Your task to perform on an android device: Search for "logitech g pro" on ebay, select the first entry, and add it to the cart. Image 0: 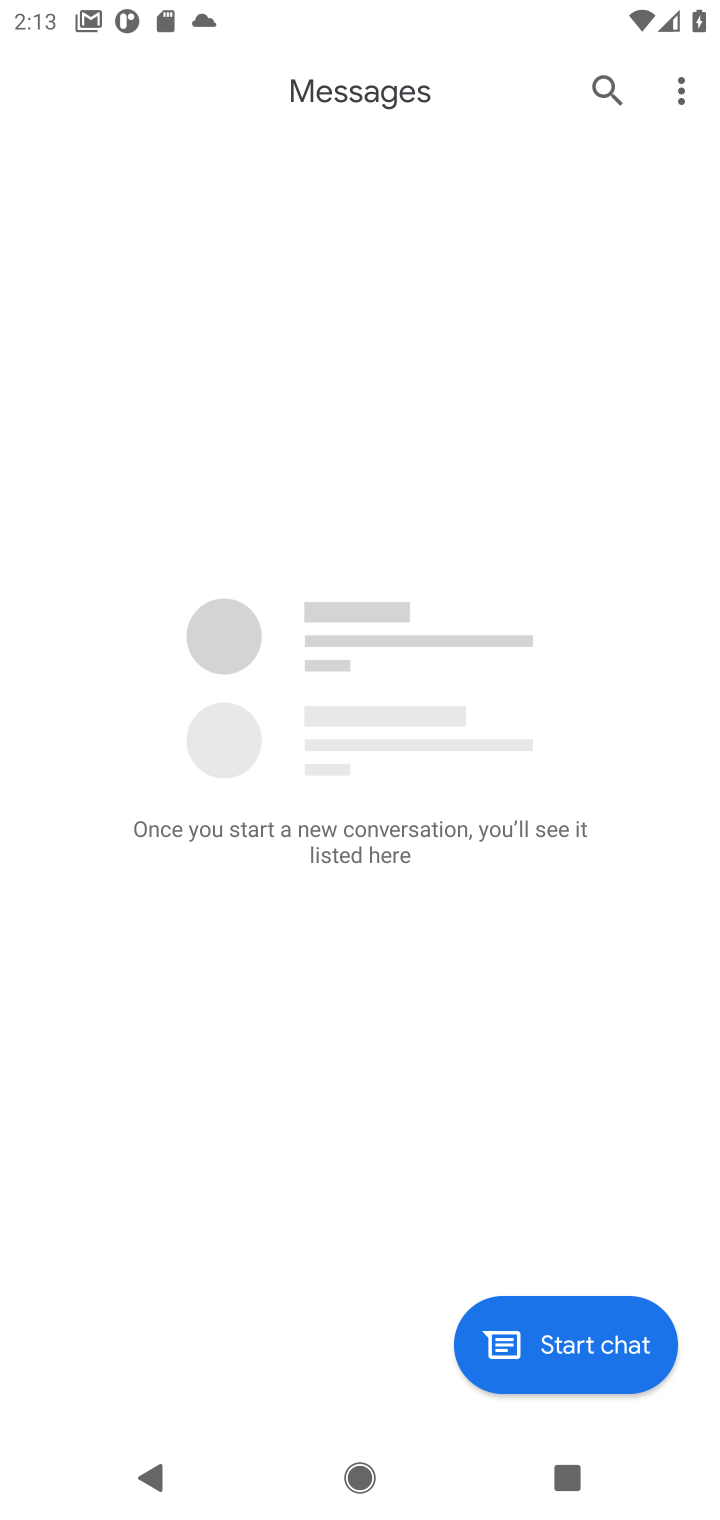
Step 0: press home button
Your task to perform on an android device: Search for "logitech g pro" on ebay, select the first entry, and add it to the cart. Image 1: 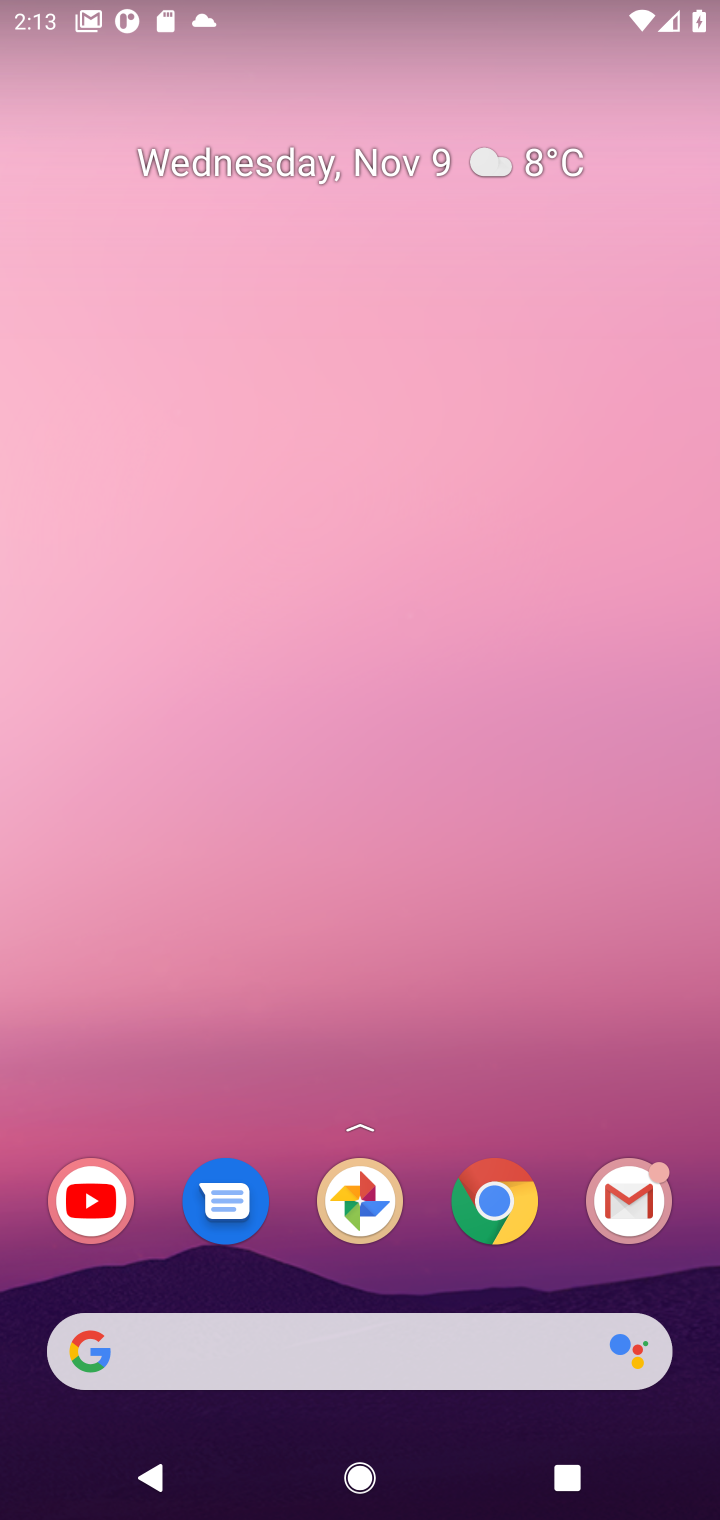
Step 1: click (316, 1383)
Your task to perform on an android device: Search for "logitech g pro" on ebay, select the first entry, and add it to the cart. Image 2: 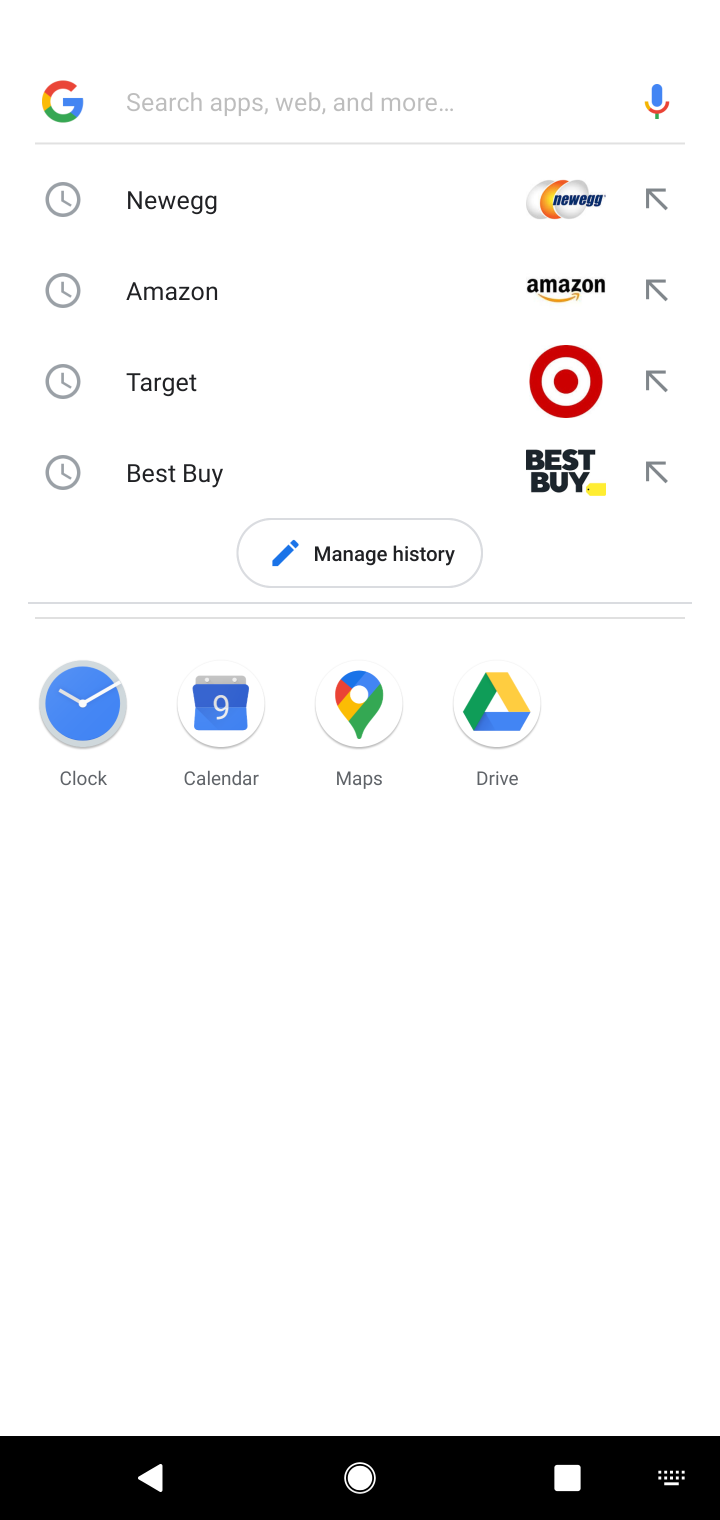
Step 2: type "ebay"
Your task to perform on an android device: Search for "logitech g pro" on ebay, select the first entry, and add it to the cart. Image 3: 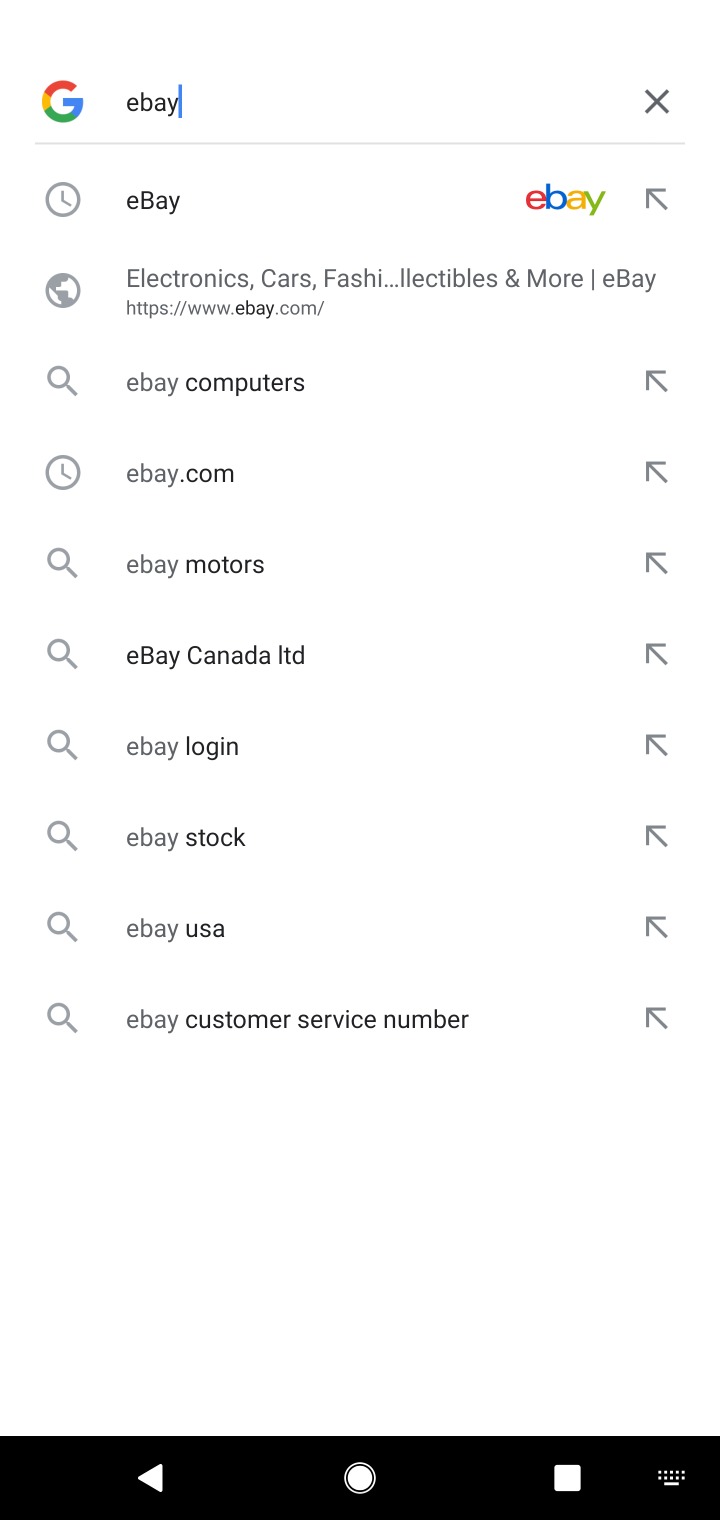
Step 3: click (540, 202)
Your task to perform on an android device: Search for "logitech g pro" on ebay, select the first entry, and add it to the cart. Image 4: 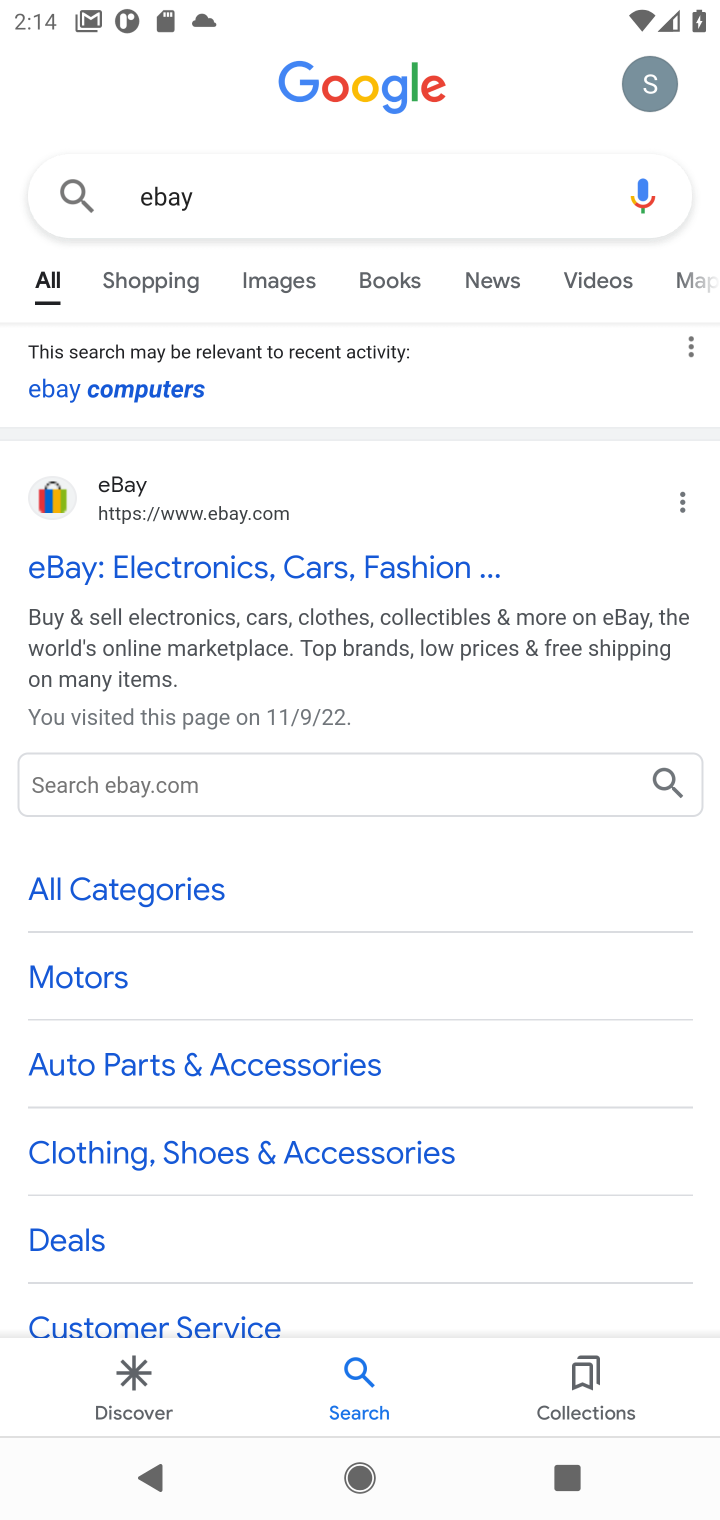
Step 4: click (169, 570)
Your task to perform on an android device: Search for "logitech g pro" on ebay, select the first entry, and add it to the cart. Image 5: 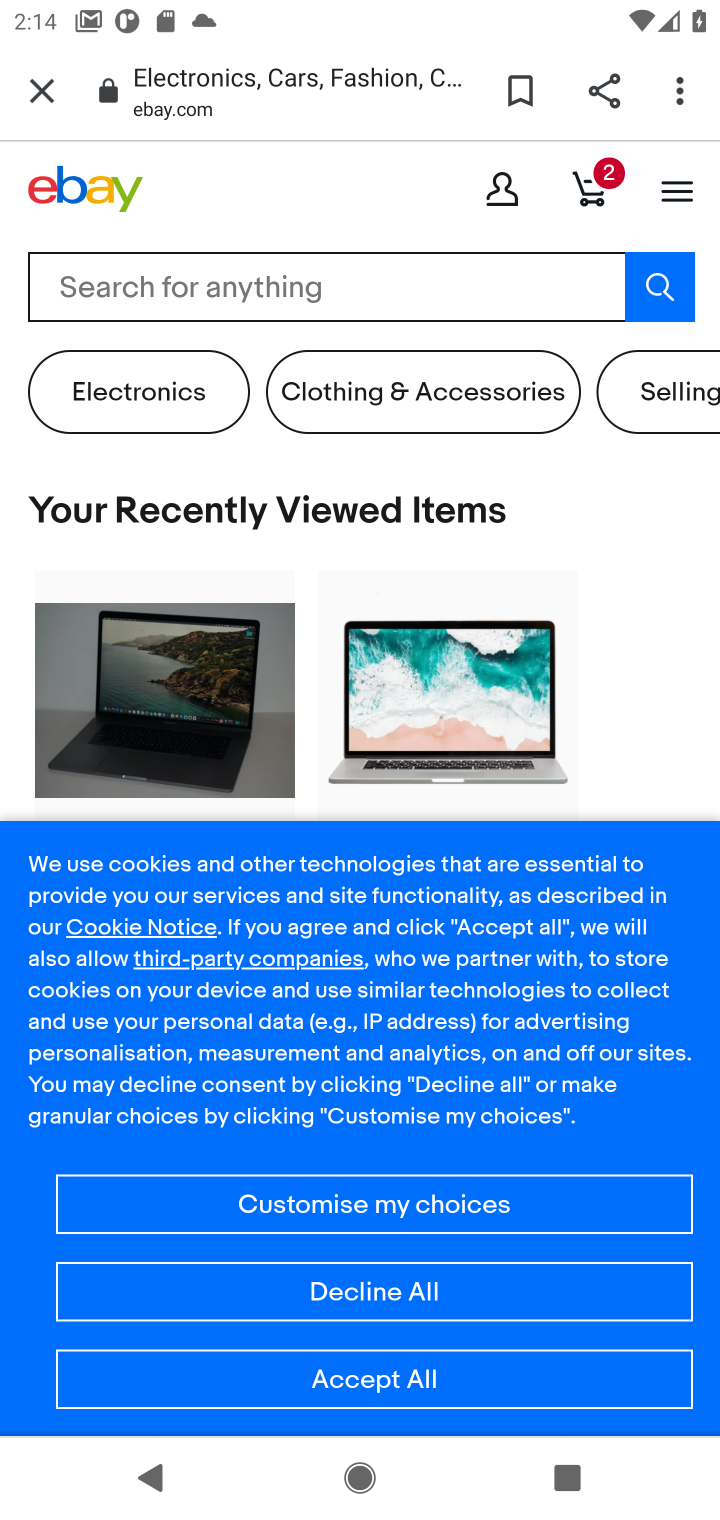
Step 5: drag from (262, 1206) to (262, 832)
Your task to perform on an android device: Search for "logitech g pro" on ebay, select the first entry, and add it to the cart. Image 6: 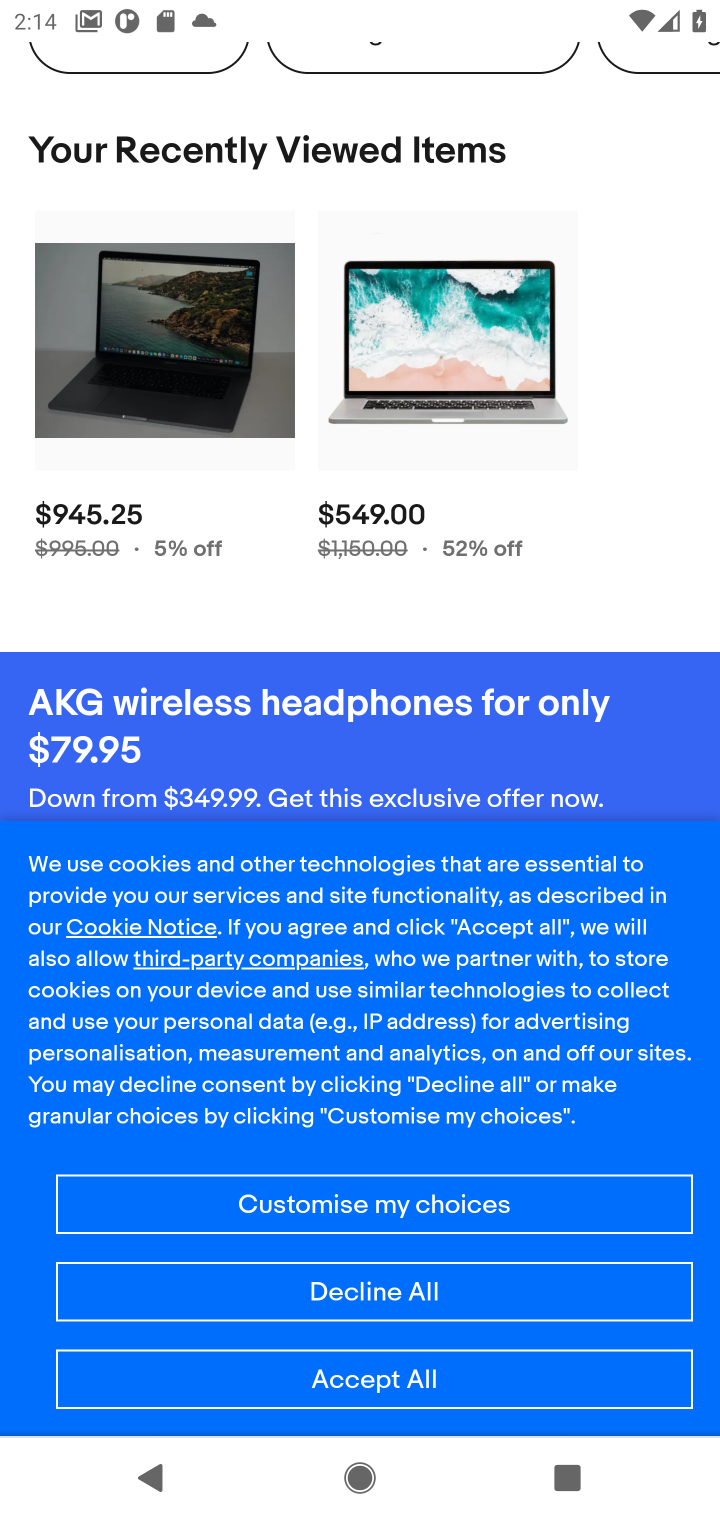
Step 6: click (362, 1286)
Your task to perform on an android device: Search for "logitech g pro" on ebay, select the first entry, and add it to the cart. Image 7: 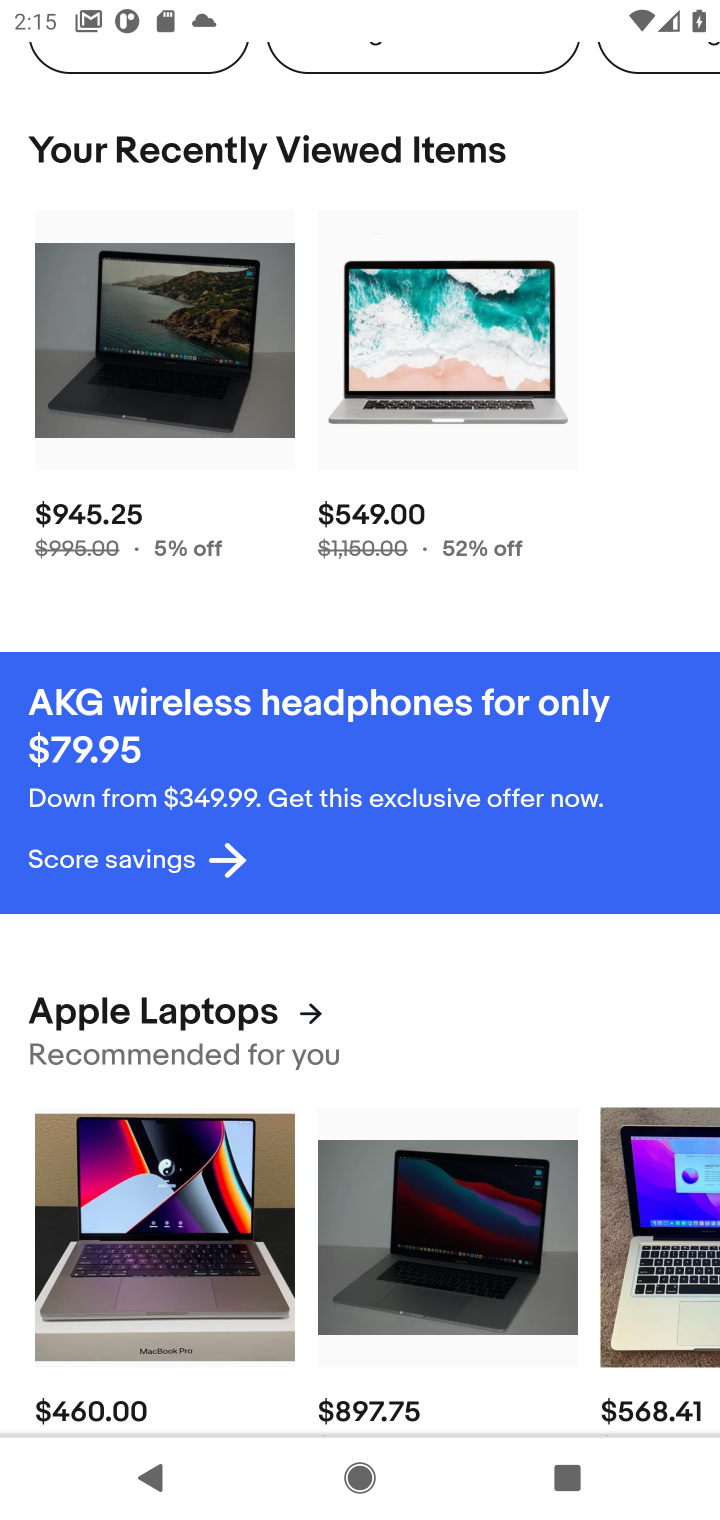
Step 7: click (151, 451)
Your task to perform on an android device: Search for "logitech g pro" on ebay, select the first entry, and add it to the cart. Image 8: 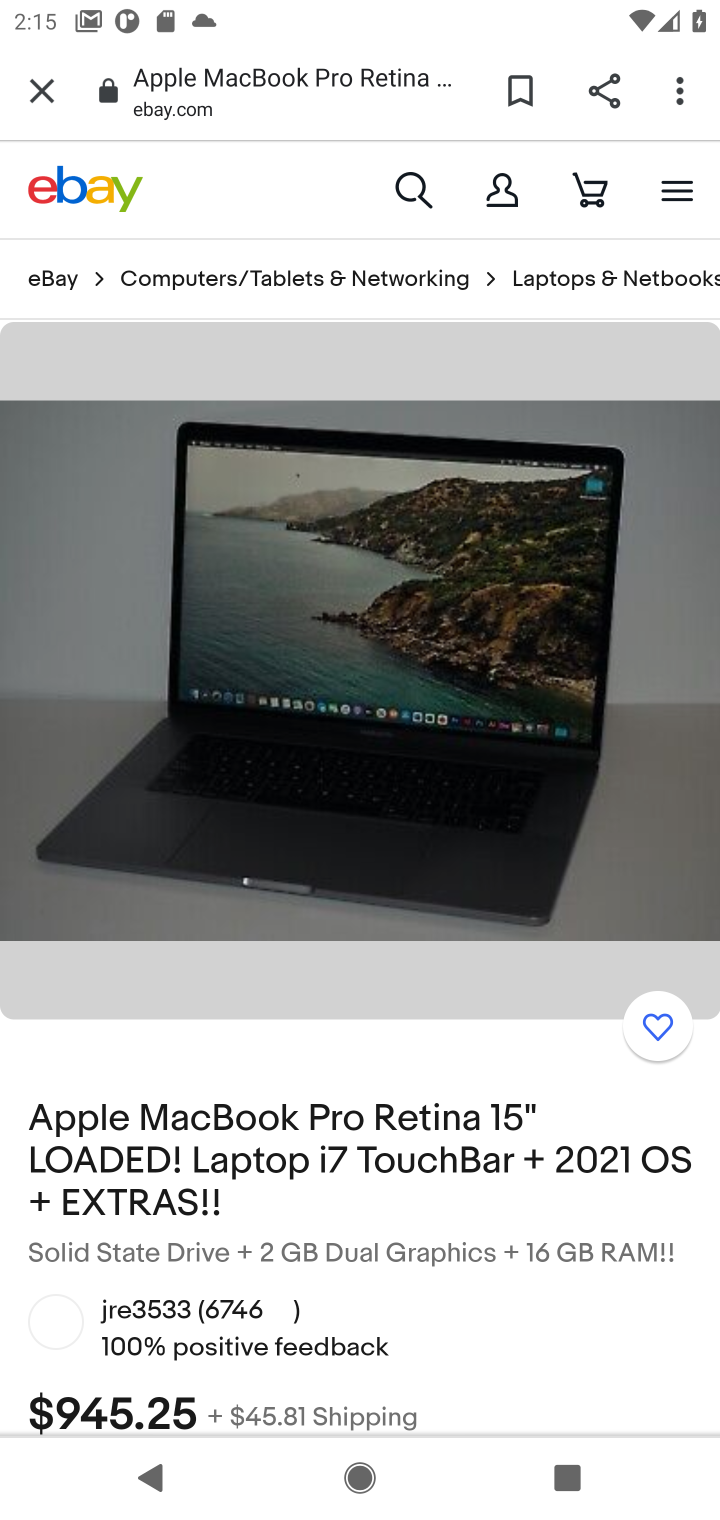
Step 8: press back button
Your task to perform on an android device: Search for "logitech g pro" on ebay, select the first entry, and add it to the cart. Image 9: 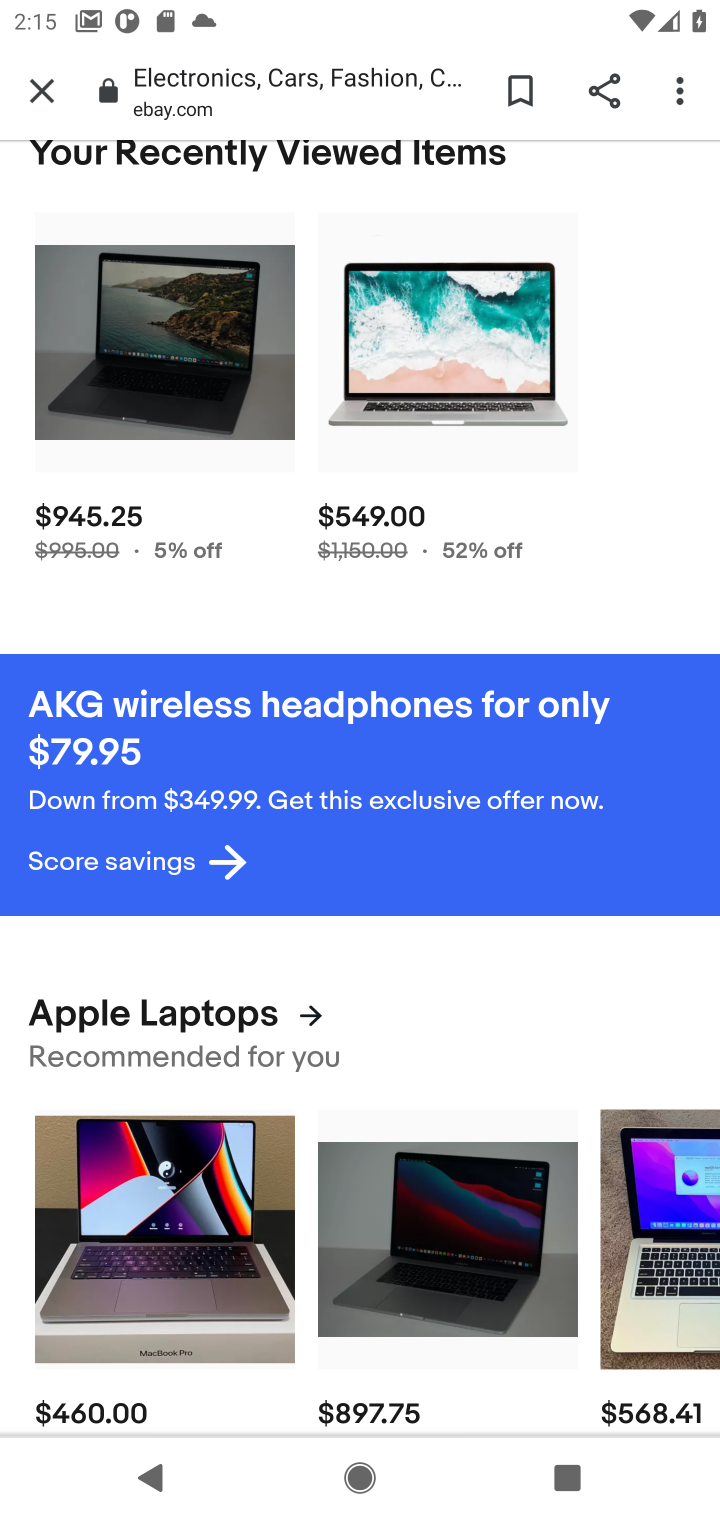
Step 9: press back button
Your task to perform on an android device: Search for "logitech g pro" on ebay, select the first entry, and add it to the cart. Image 10: 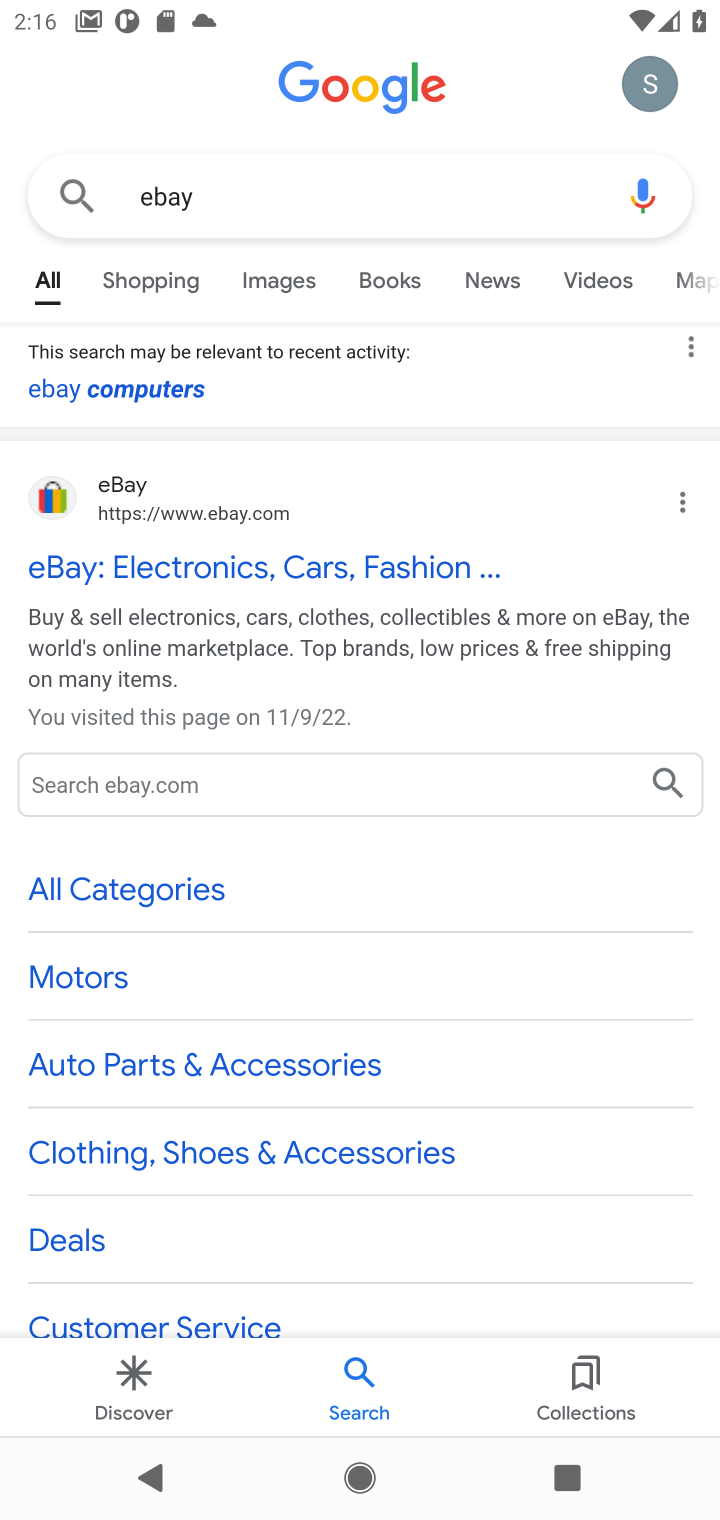
Step 10: click (158, 561)
Your task to perform on an android device: Search for "logitech g pro" on ebay, select the first entry, and add it to the cart. Image 11: 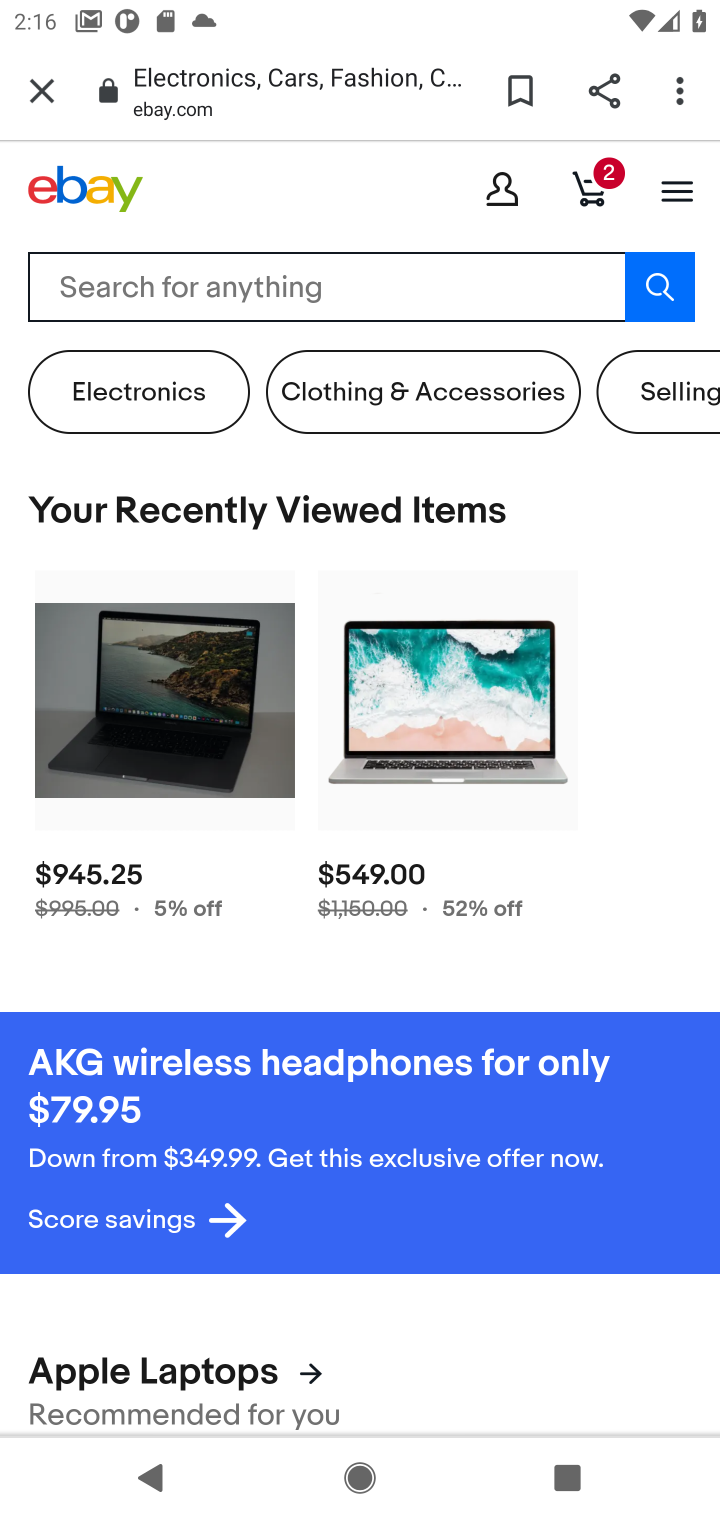
Step 11: drag from (184, 841) to (221, 683)
Your task to perform on an android device: Search for "logitech g pro" on ebay, select the first entry, and add it to the cart. Image 12: 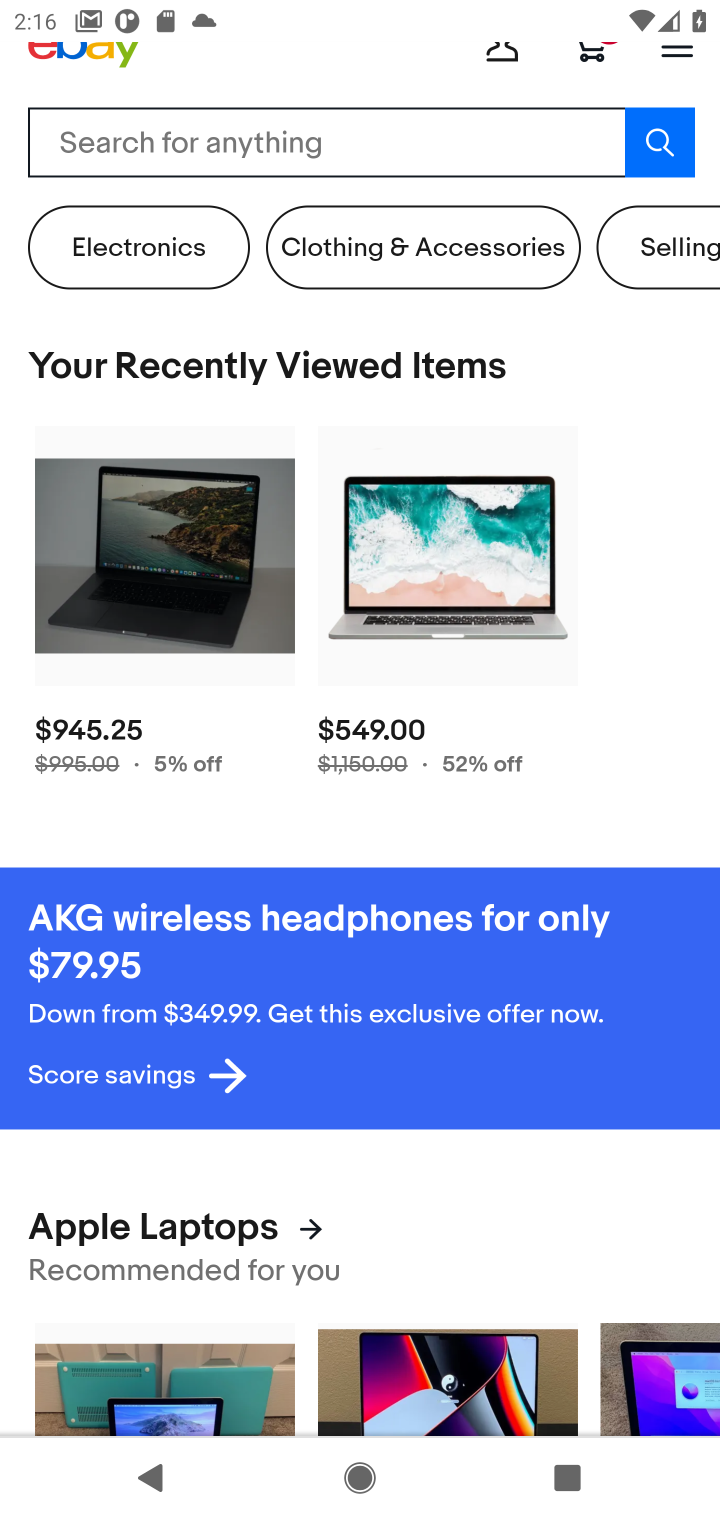
Step 12: click (411, 609)
Your task to perform on an android device: Search for "logitech g pro" on ebay, select the first entry, and add it to the cart. Image 13: 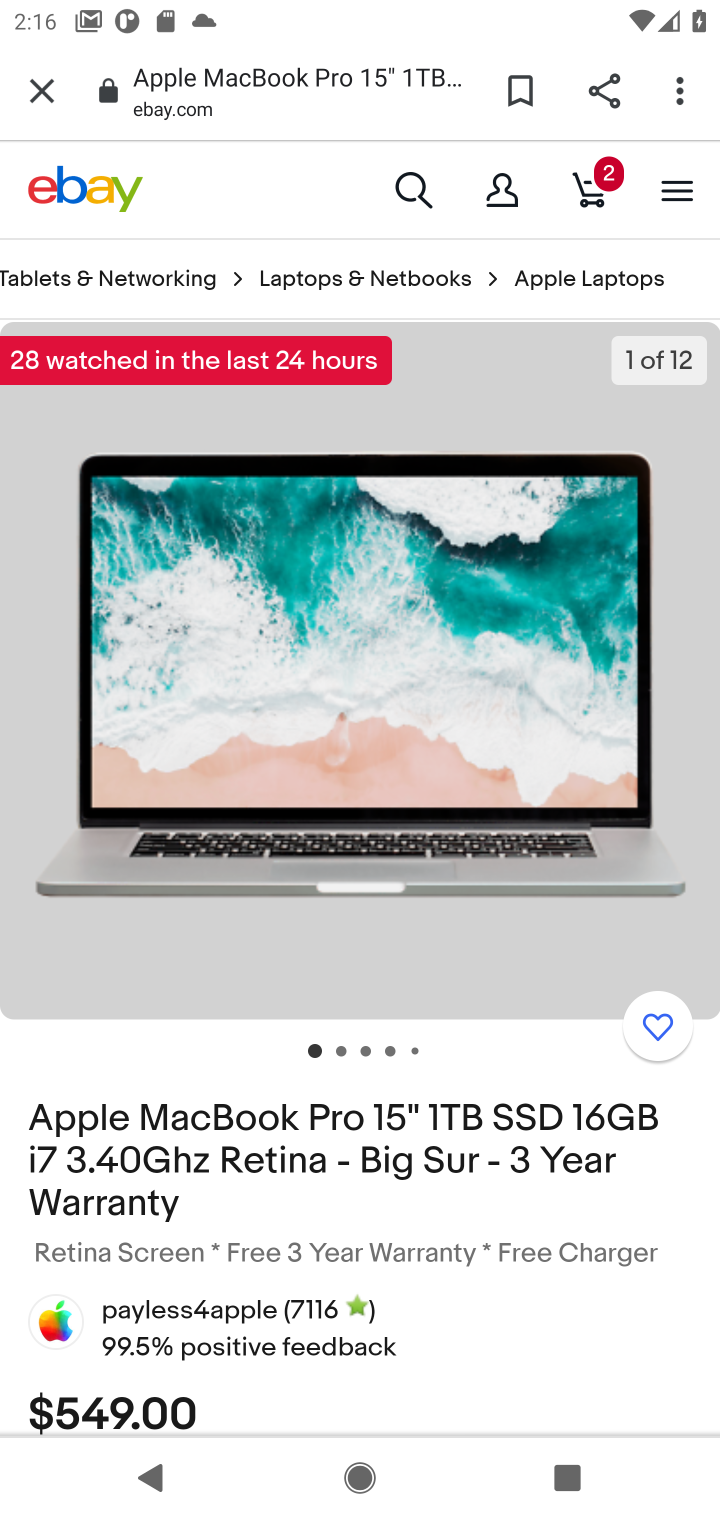
Step 13: click (409, 191)
Your task to perform on an android device: Search for "logitech g pro" on ebay, select the first entry, and add it to the cart. Image 14: 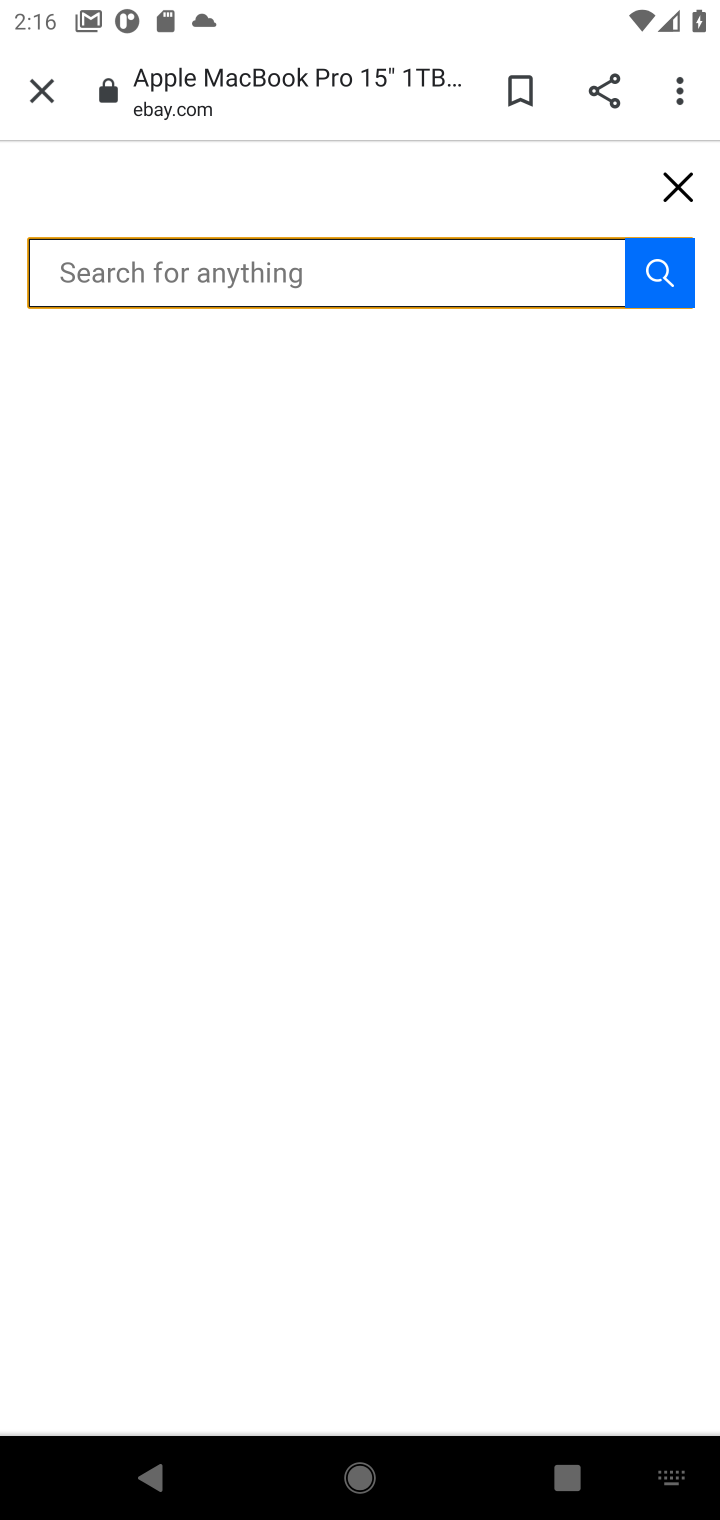
Step 14: click (316, 272)
Your task to perform on an android device: Search for "logitech g pro" on ebay, select the first entry, and add it to the cart. Image 15: 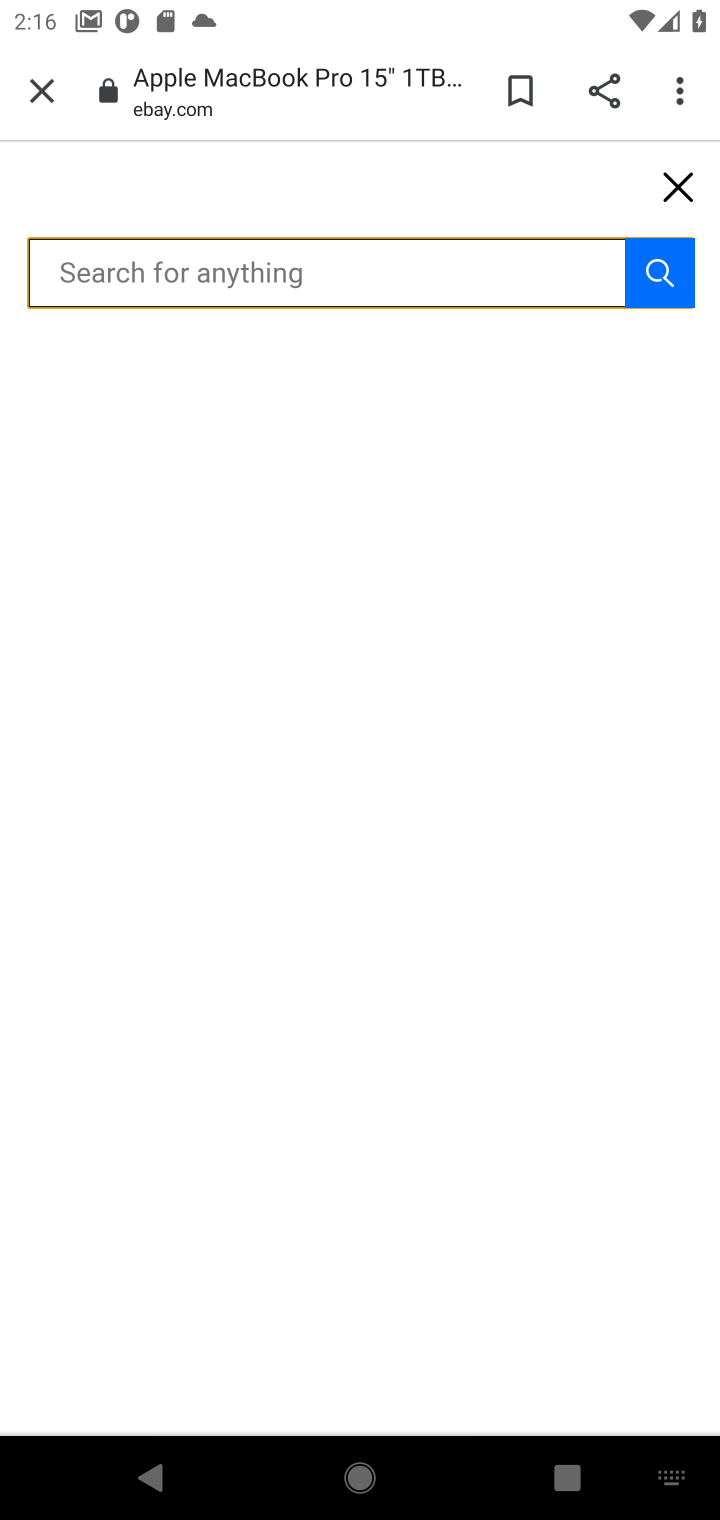
Step 15: type "logitech g pro"
Your task to perform on an android device: Search for "logitech g pro" on ebay, select the first entry, and add it to the cart. Image 16: 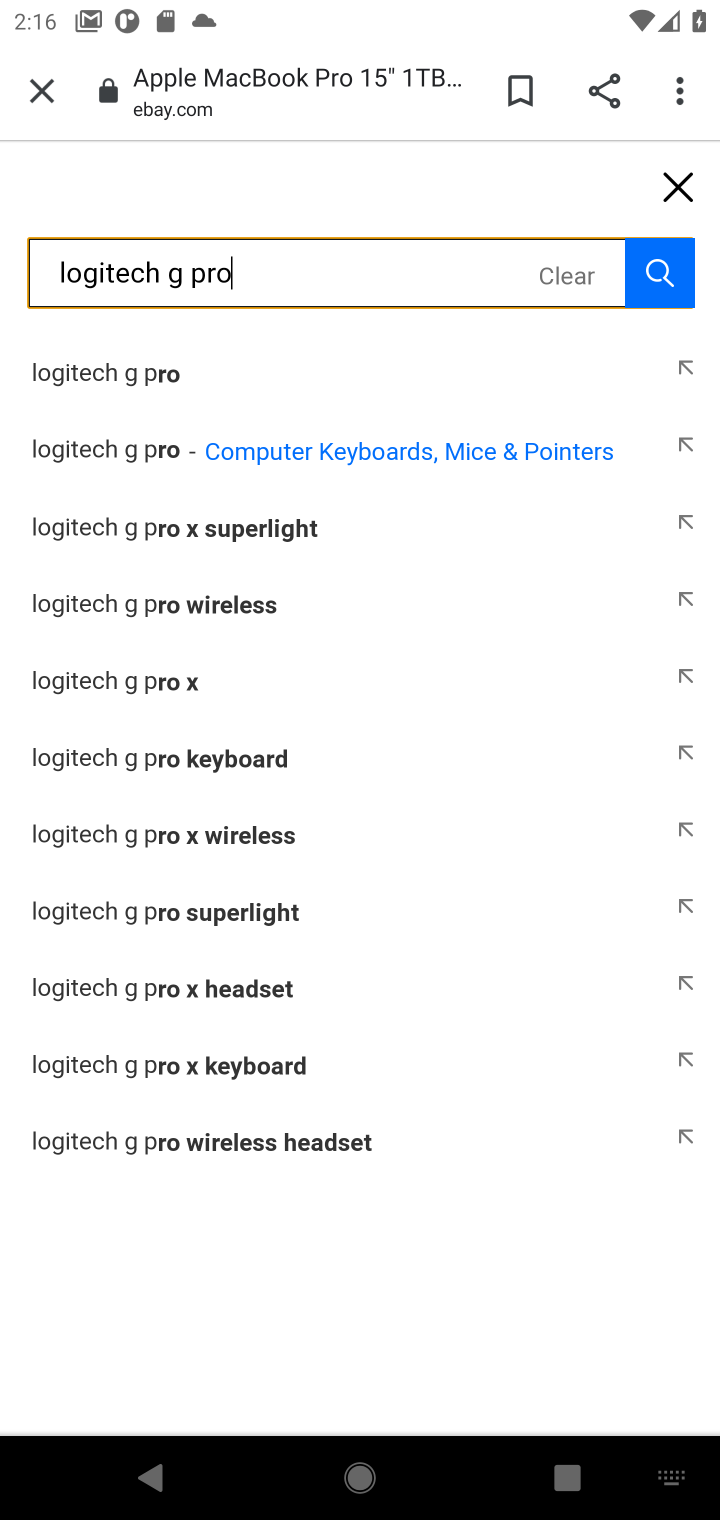
Step 16: click (117, 384)
Your task to perform on an android device: Search for "logitech g pro" on ebay, select the first entry, and add it to the cart. Image 17: 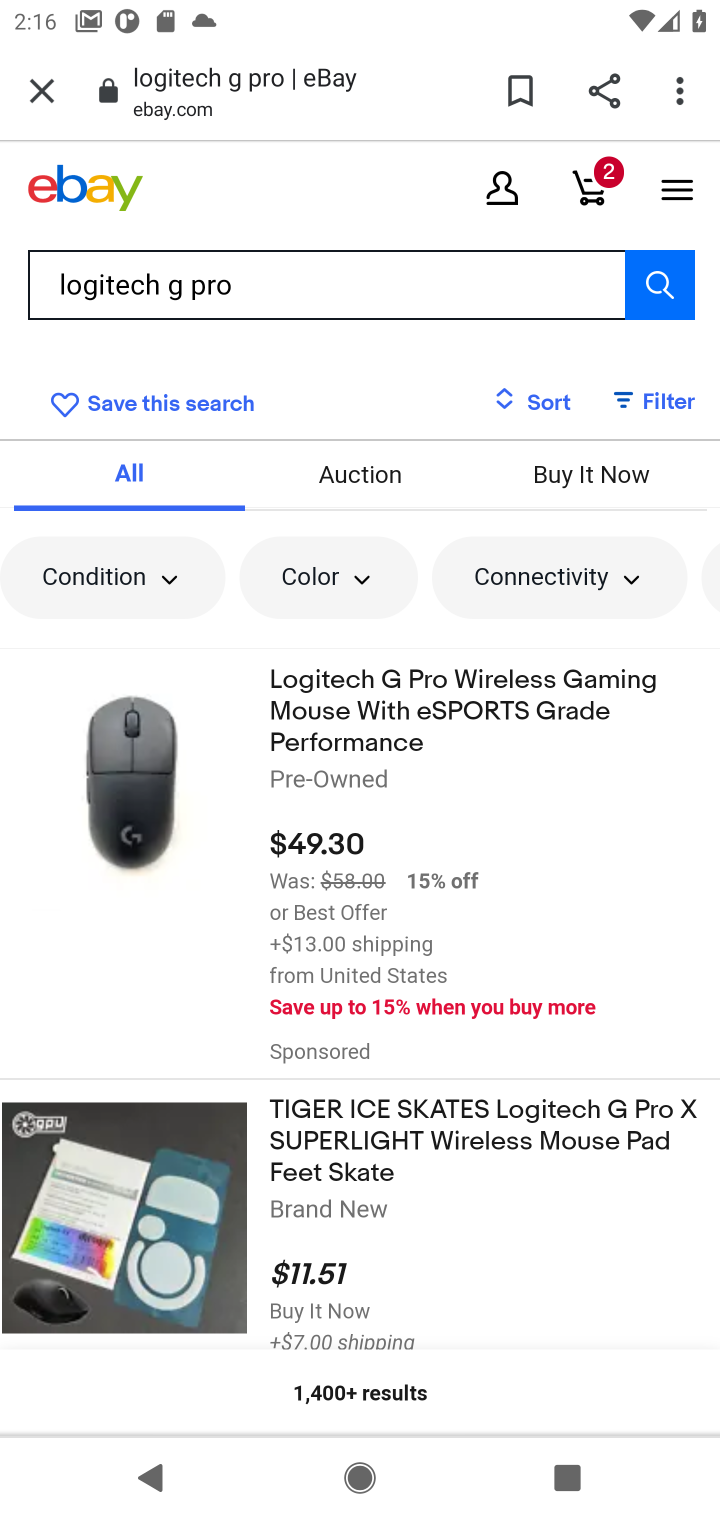
Step 17: click (308, 679)
Your task to perform on an android device: Search for "logitech g pro" on ebay, select the first entry, and add it to the cart. Image 18: 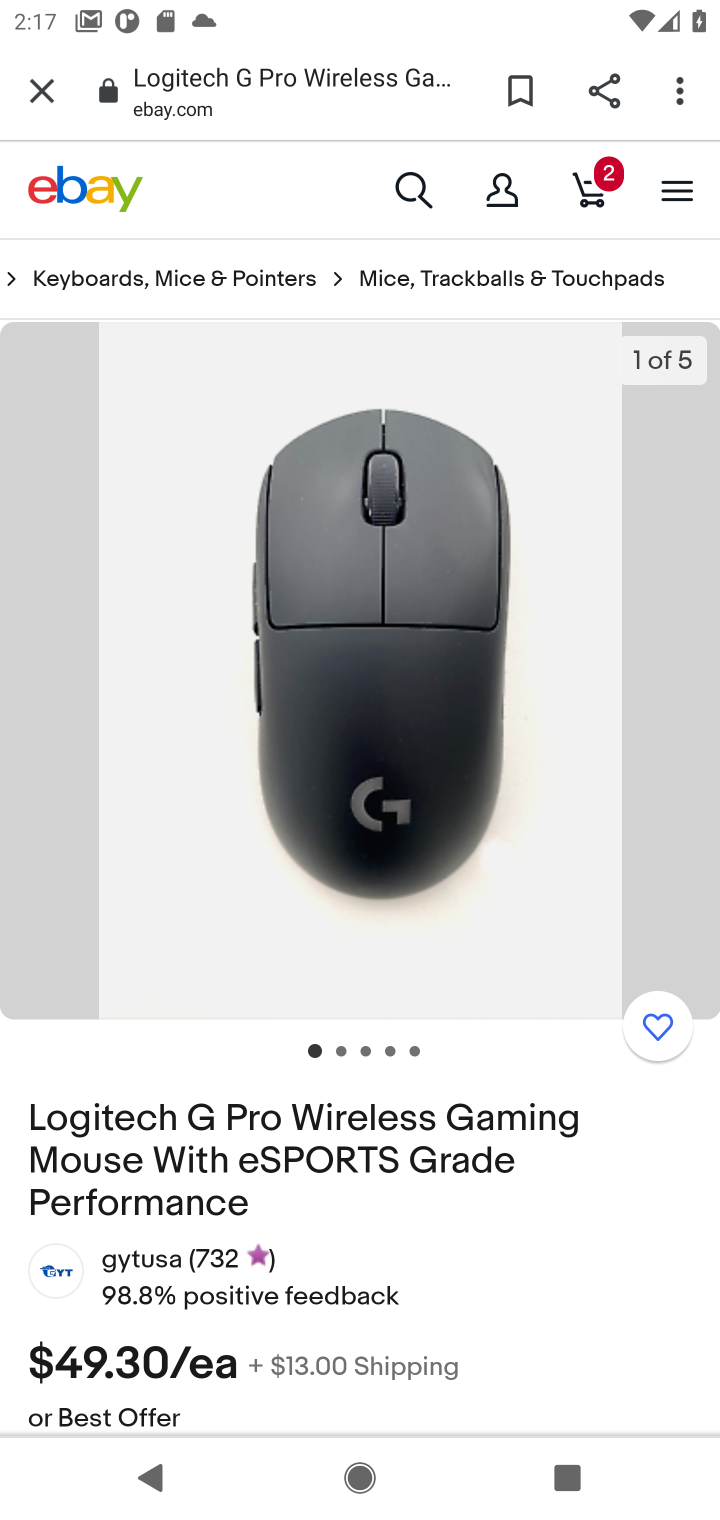
Step 18: drag from (362, 1140) to (327, 812)
Your task to perform on an android device: Search for "logitech g pro" on ebay, select the first entry, and add it to the cart. Image 19: 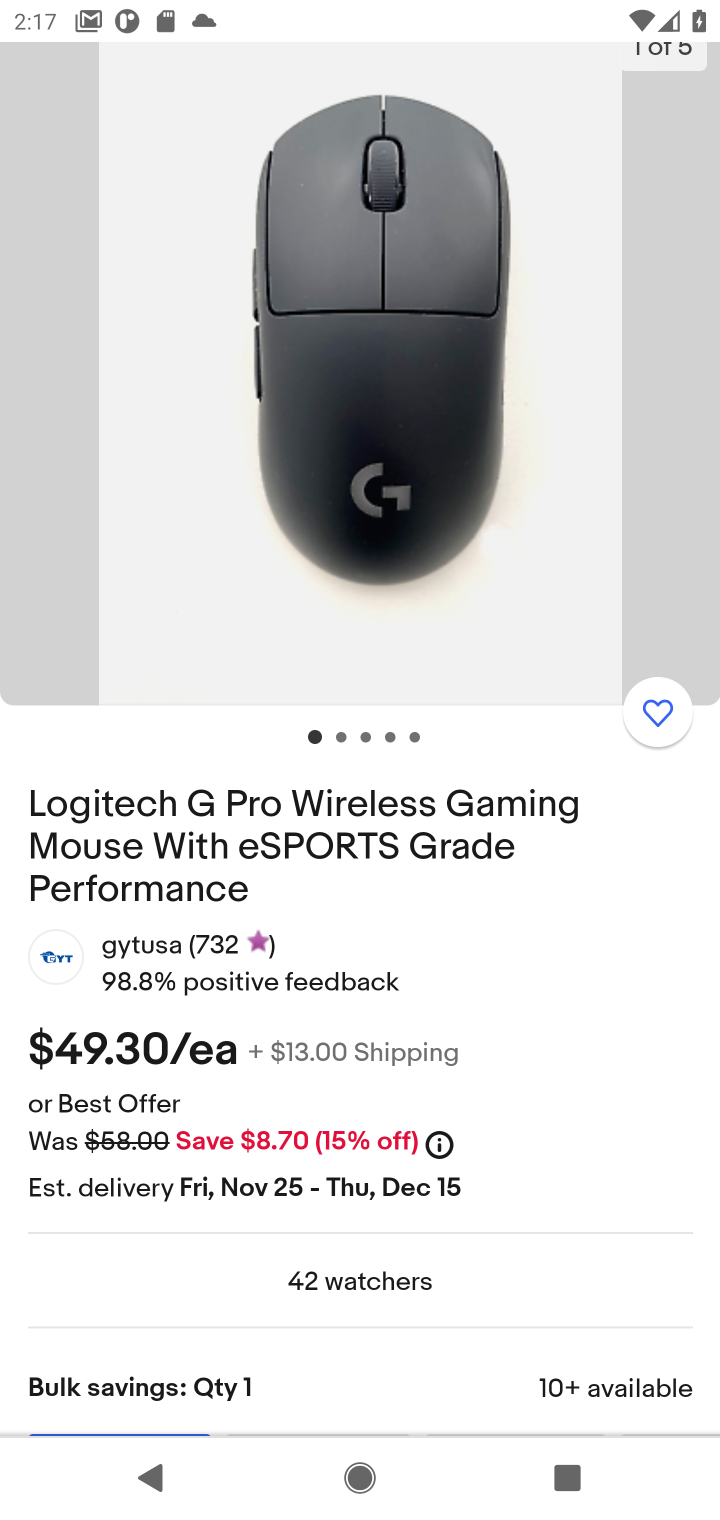
Step 19: drag from (379, 1116) to (462, 268)
Your task to perform on an android device: Search for "logitech g pro" on ebay, select the first entry, and add it to the cart. Image 20: 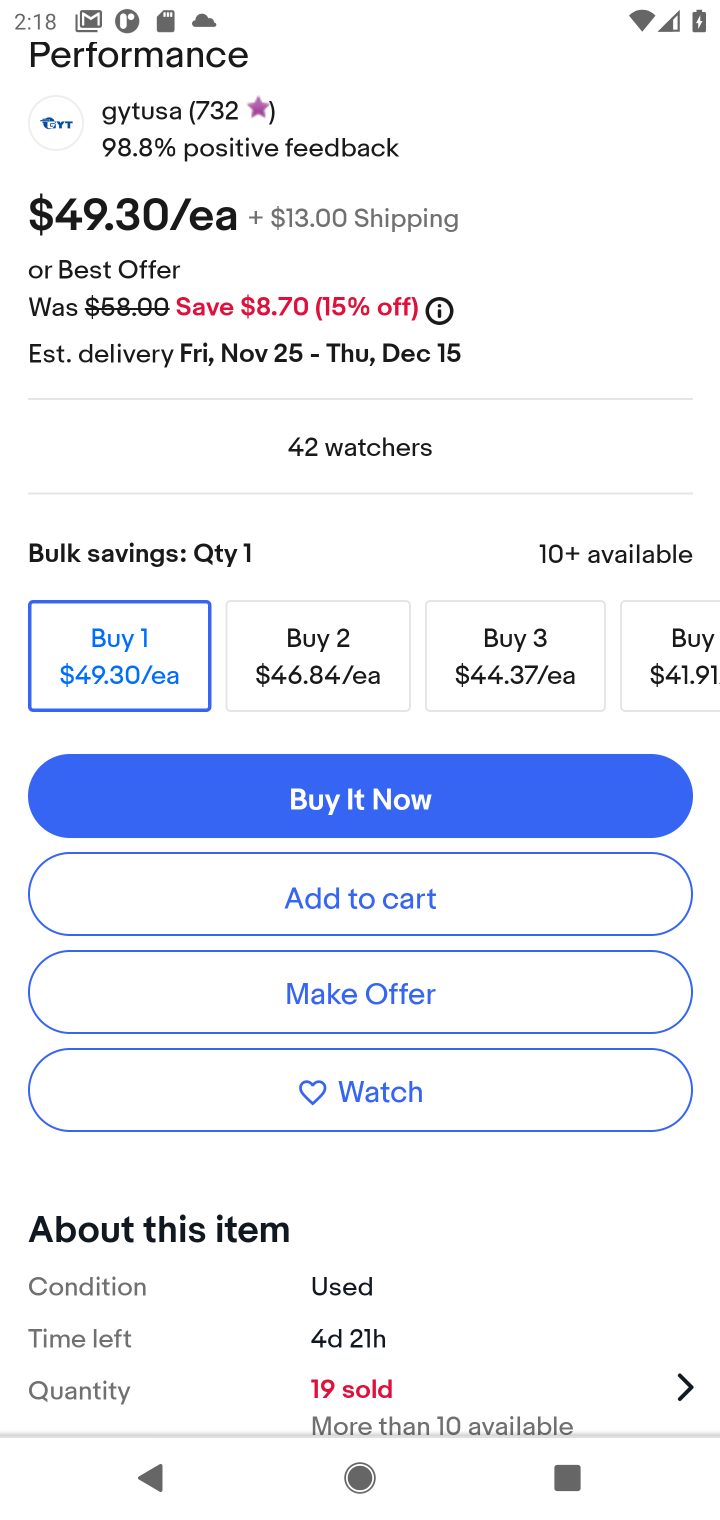
Step 20: click (353, 895)
Your task to perform on an android device: Search for "logitech g pro" on ebay, select the first entry, and add it to the cart. Image 21: 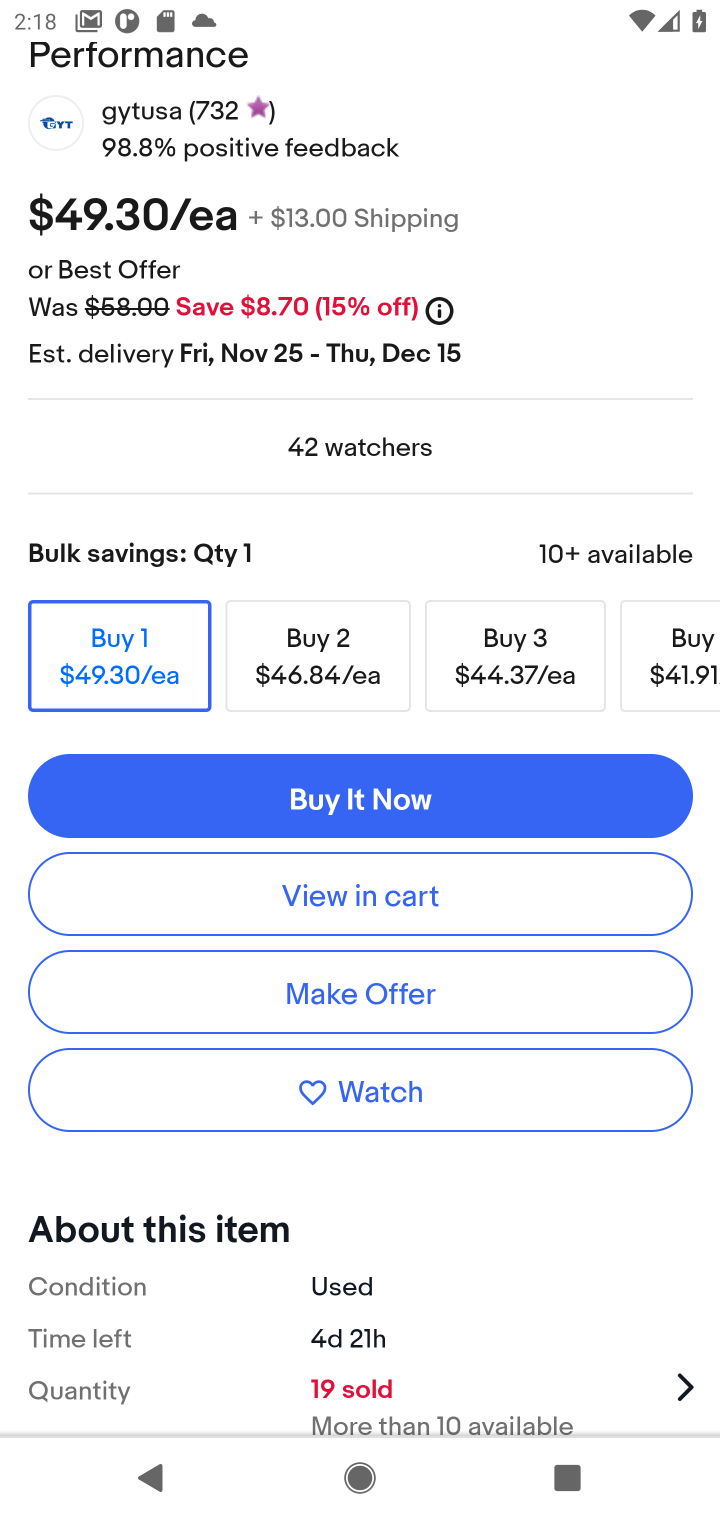
Step 21: click (343, 905)
Your task to perform on an android device: Search for "logitech g pro" on ebay, select the first entry, and add it to the cart. Image 22: 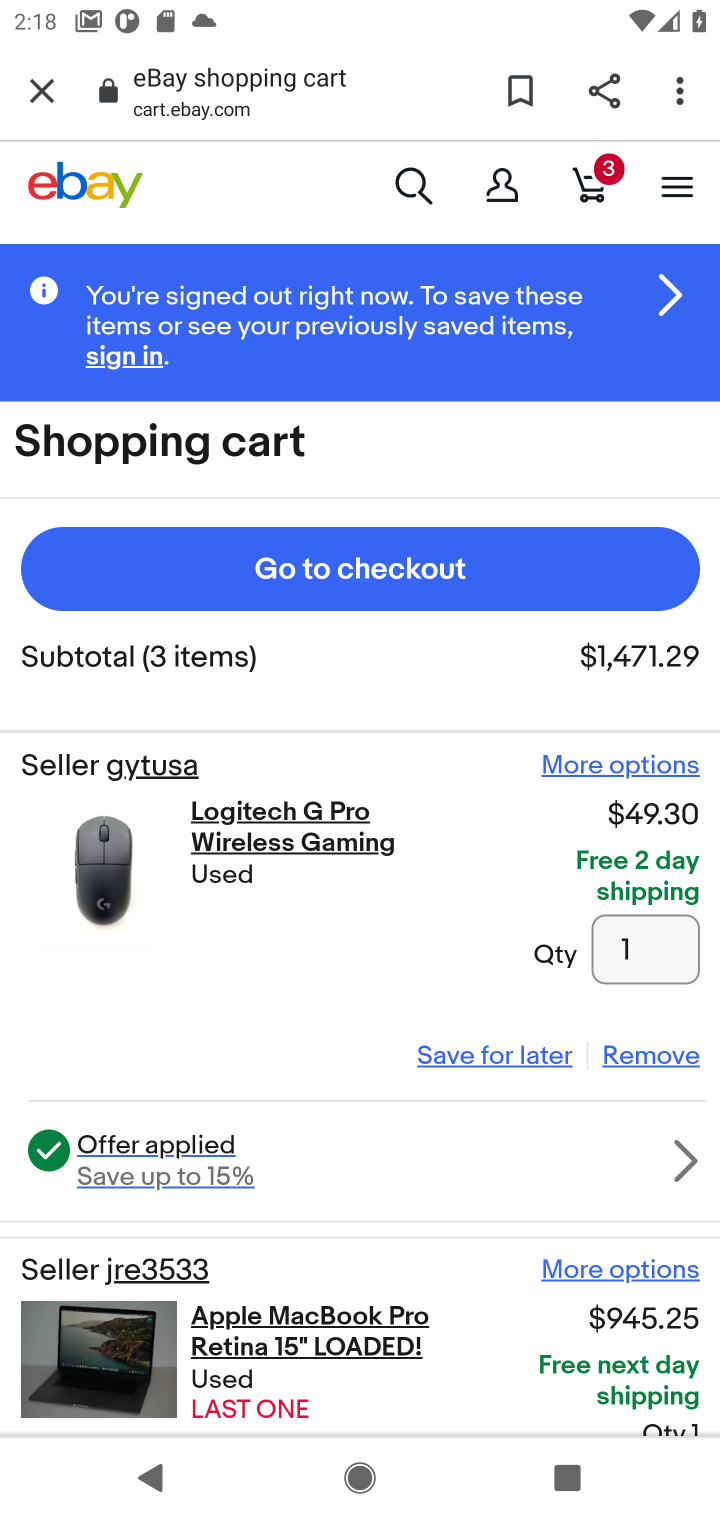
Step 22: click (329, 558)
Your task to perform on an android device: Search for "logitech g pro" on ebay, select the first entry, and add it to the cart. Image 23: 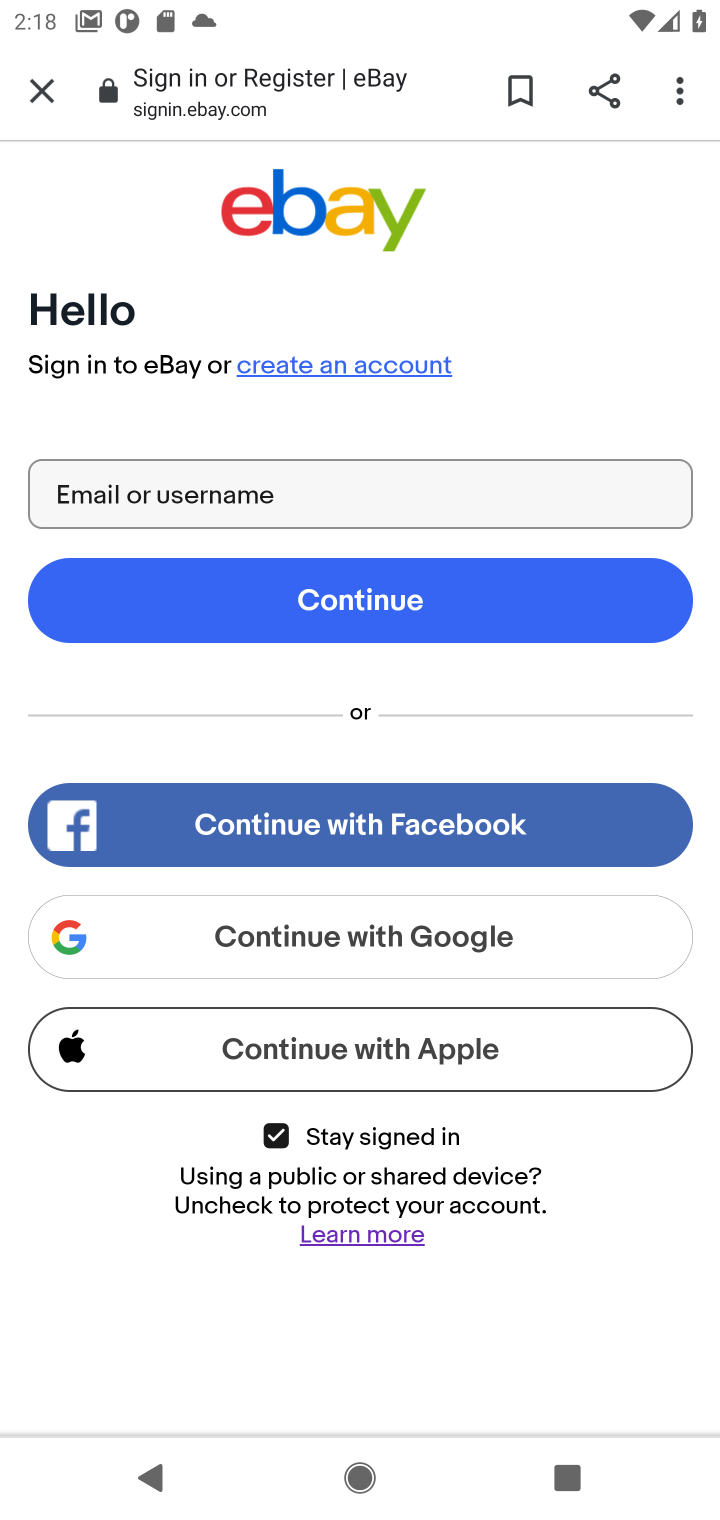
Step 23: task complete